Your task to perform on an android device: Open maps Image 0: 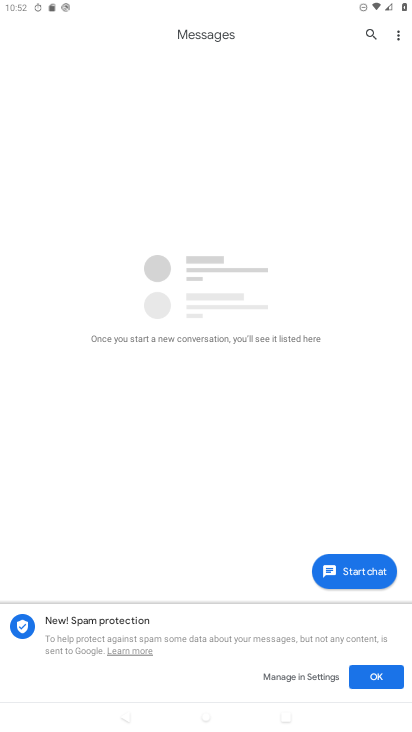
Step 0: press home button
Your task to perform on an android device: Open maps Image 1: 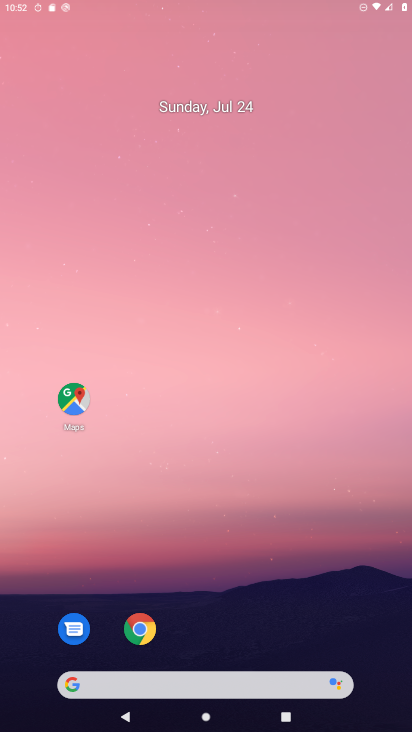
Step 1: drag from (135, 643) to (317, 155)
Your task to perform on an android device: Open maps Image 2: 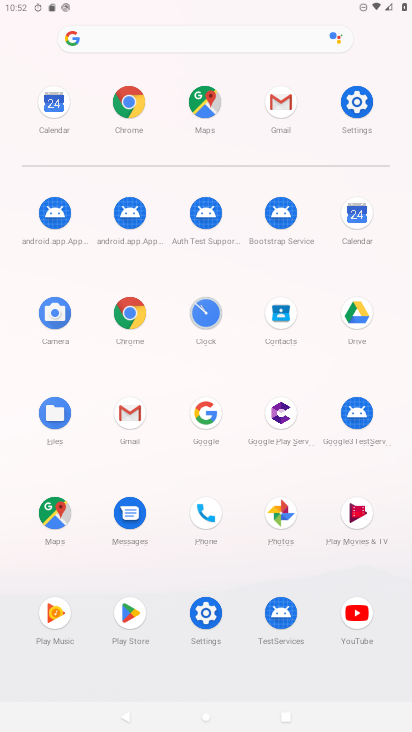
Step 2: click (212, 120)
Your task to perform on an android device: Open maps Image 3: 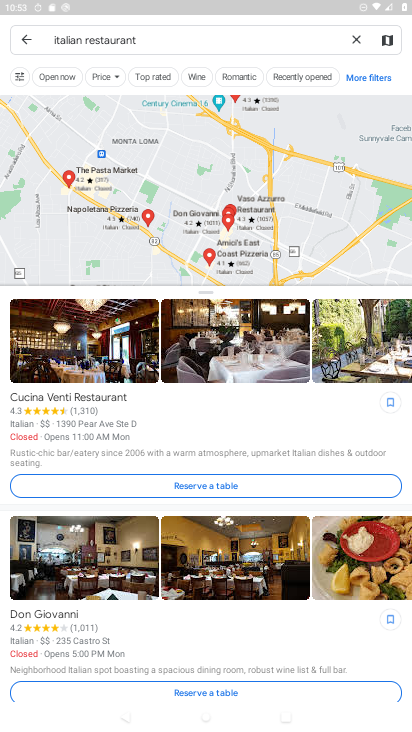
Step 3: task complete